Your task to perform on an android device: Add "bose quietcomfort 35" to the cart on bestbuy.com Image 0: 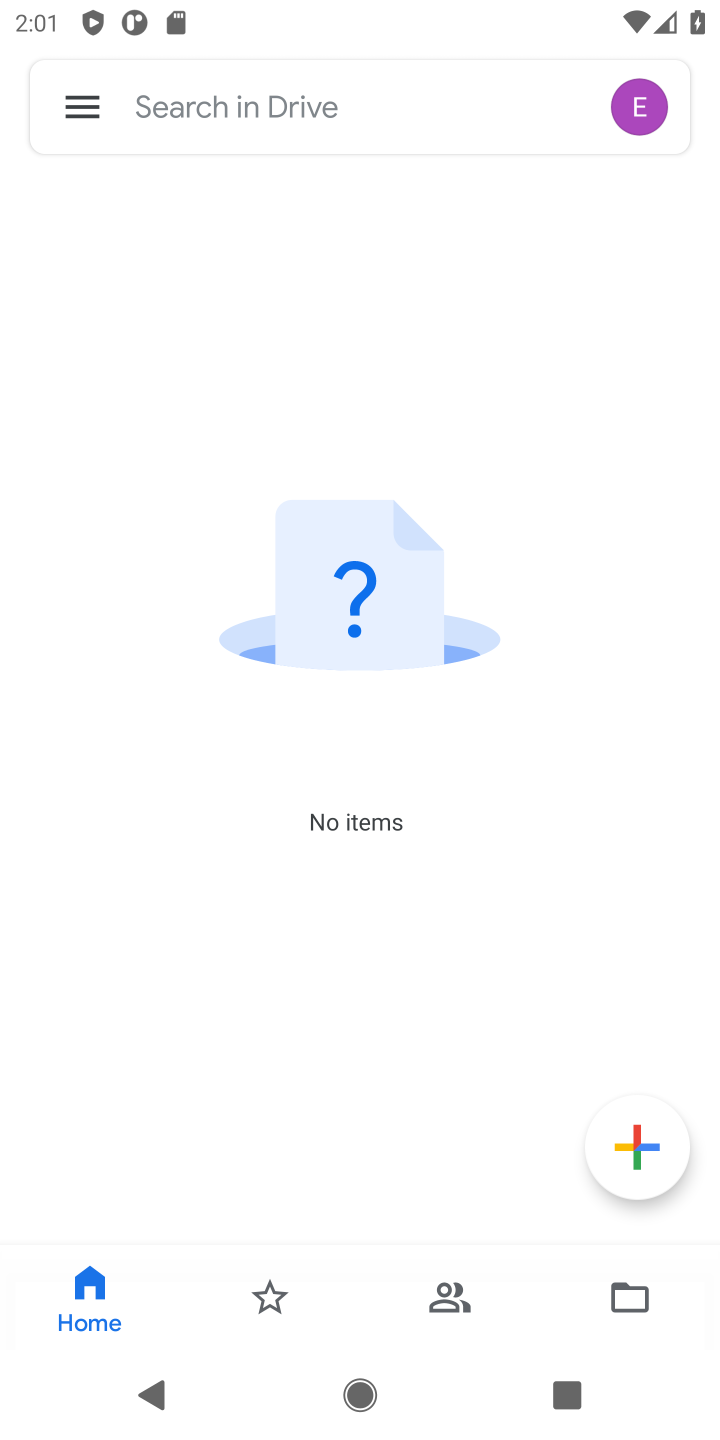
Step 0: press home button
Your task to perform on an android device: Add "bose quietcomfort 35" to the cart on bestbuy.com Image 1: 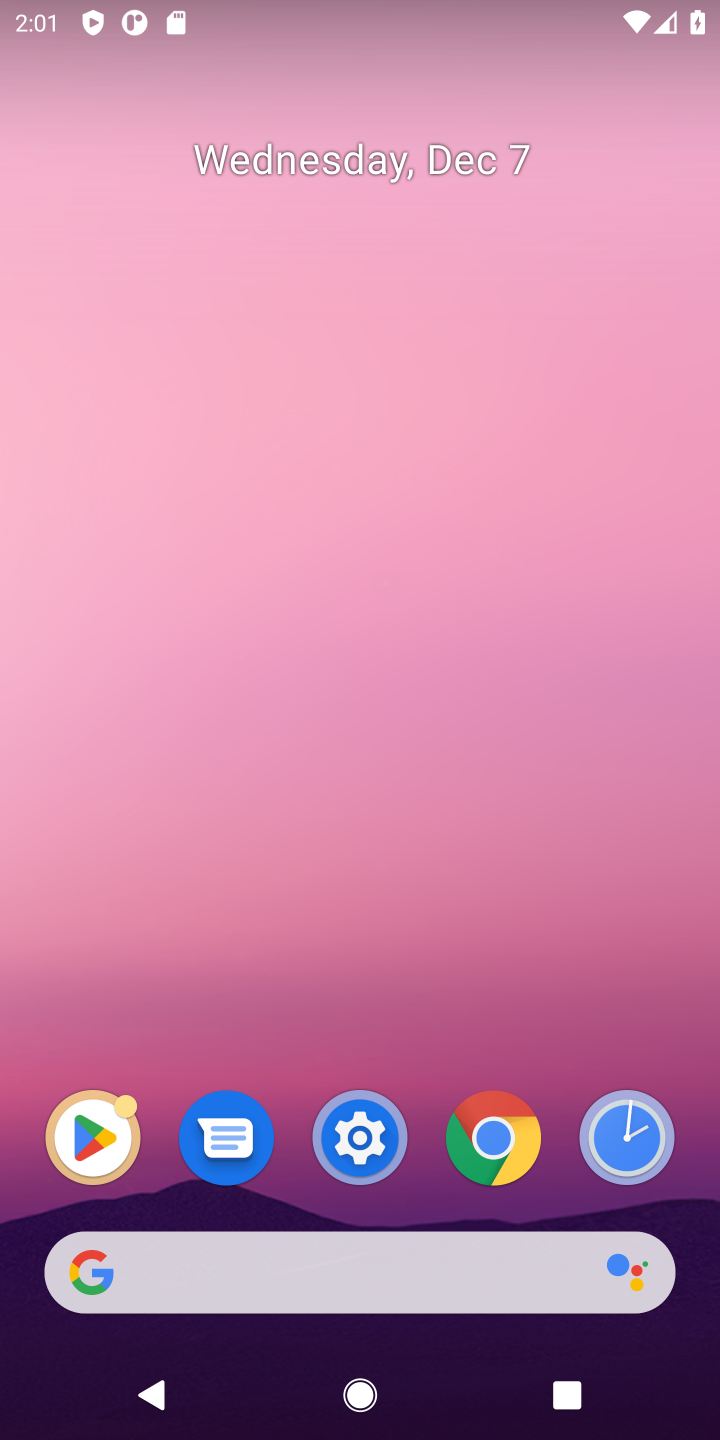
Step 1: click (367, 1258)
Your task to perform on an android device: Add "bose quietcomfort 35" to the cart on bestbuy.com Image 2: 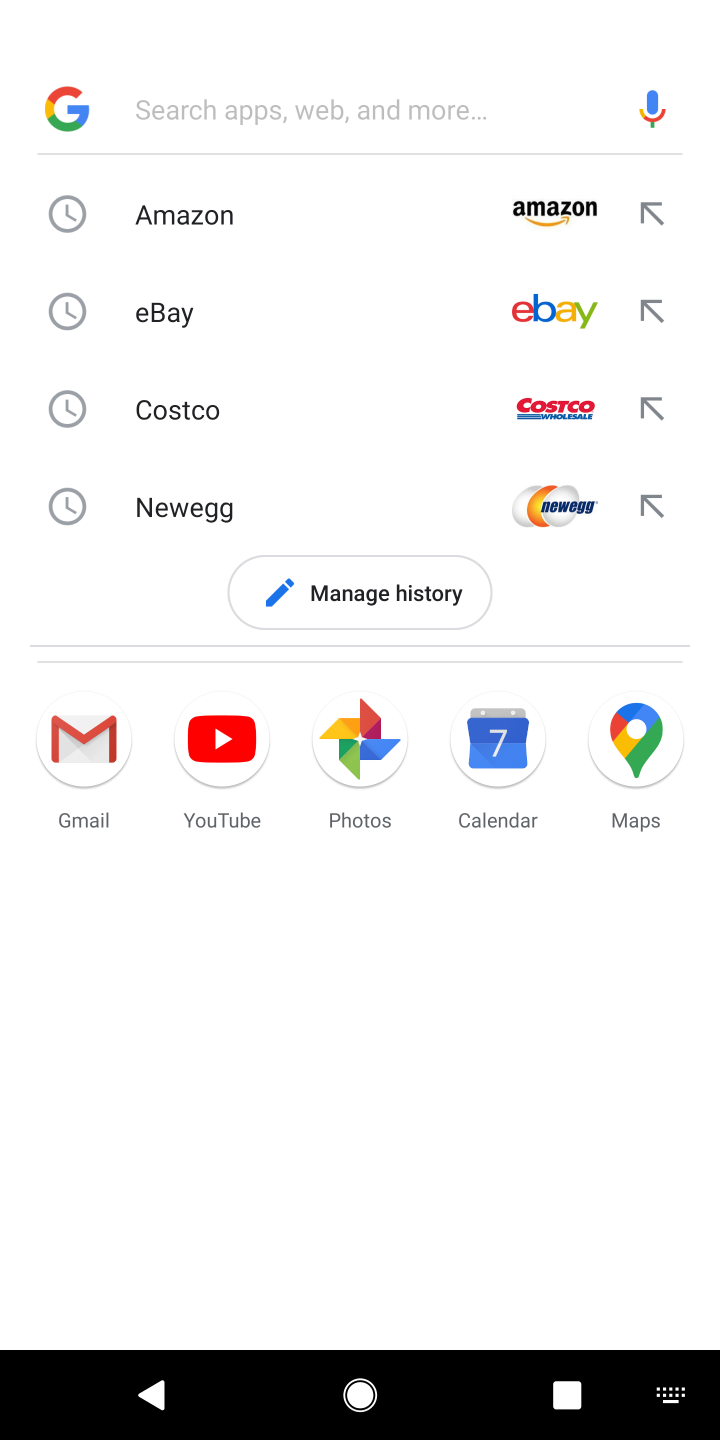
Step 2: type "bestbuy"
Your task to perform on an android device: Add "bose quietcomfort 35" to the cart on bestbuy.com Image 3: 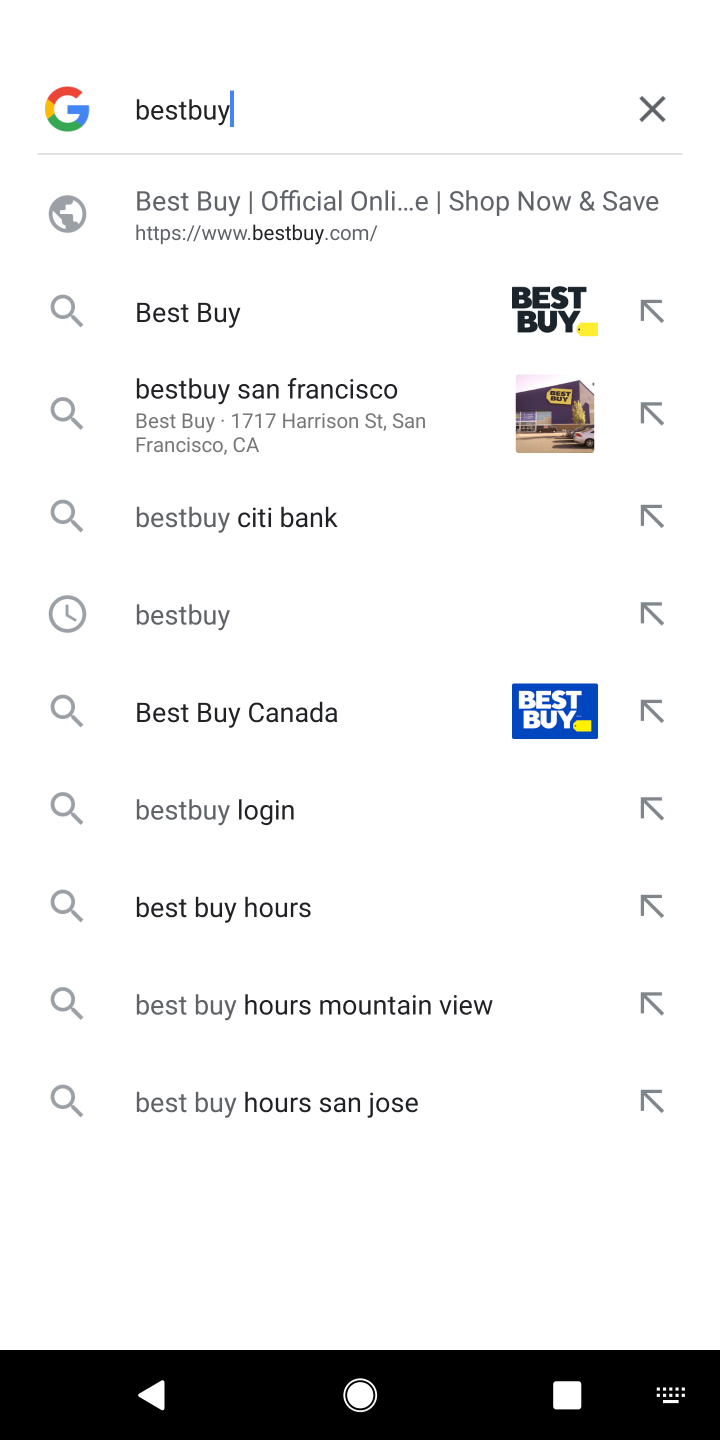
Step 3: click (199, 219)
Your task to perform on an android device: Add "bose quietcomfort 35" to the cart on bestbuy.com Image 4: 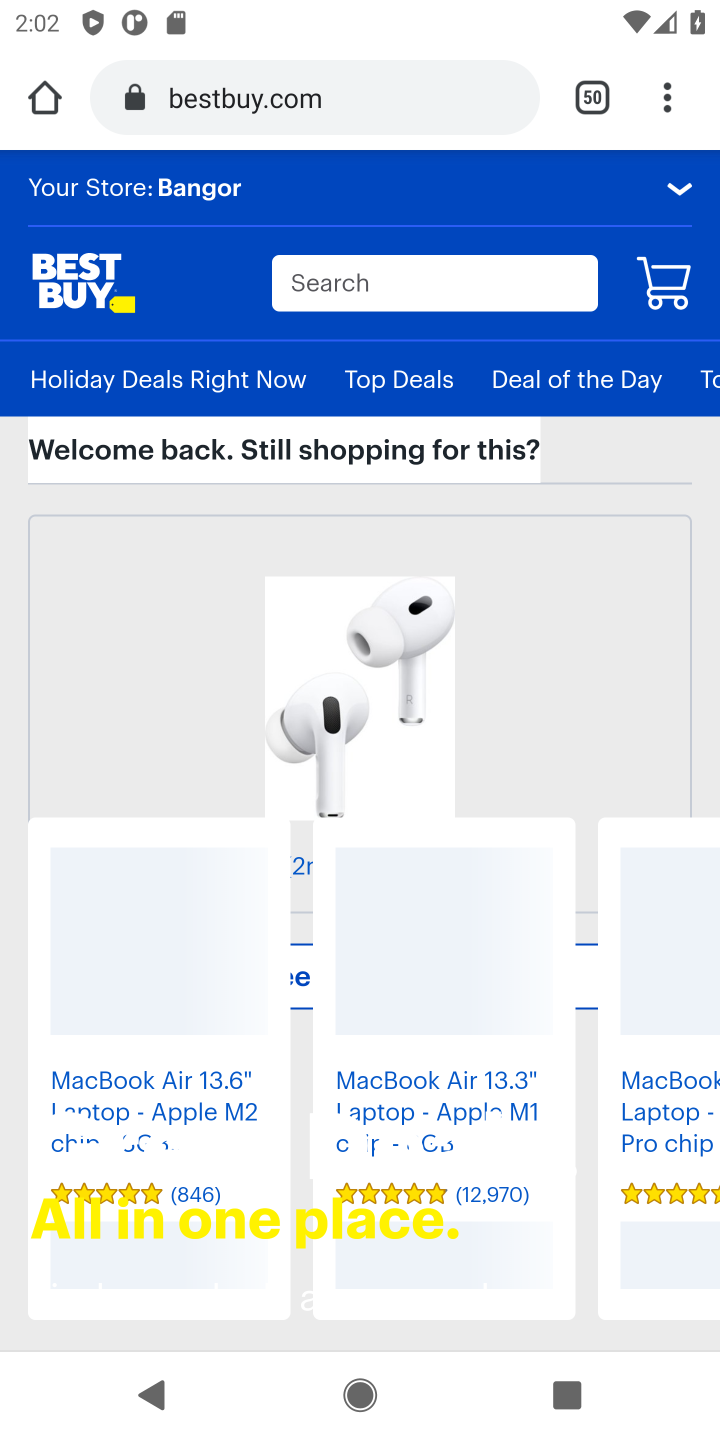
Step 4: click (387, 279)
Your task to perform on an android device: Add "bose quietcomfort 35" to the cart on bestbuy.com Image 5: 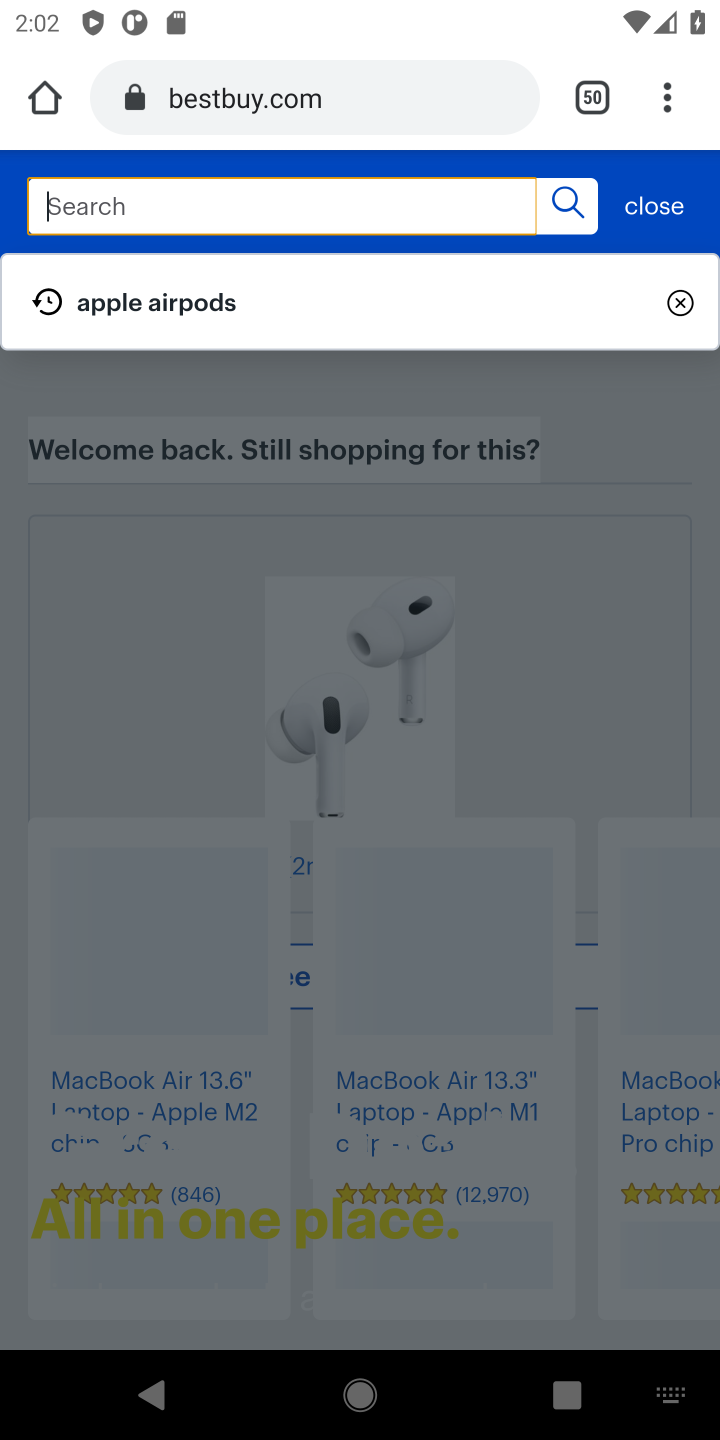
Step 5: type "bose quietcomfort"
Your task to perform on an android device: Add "bose quietcomfort 35" to the cart on bestbuy.com Image 6: 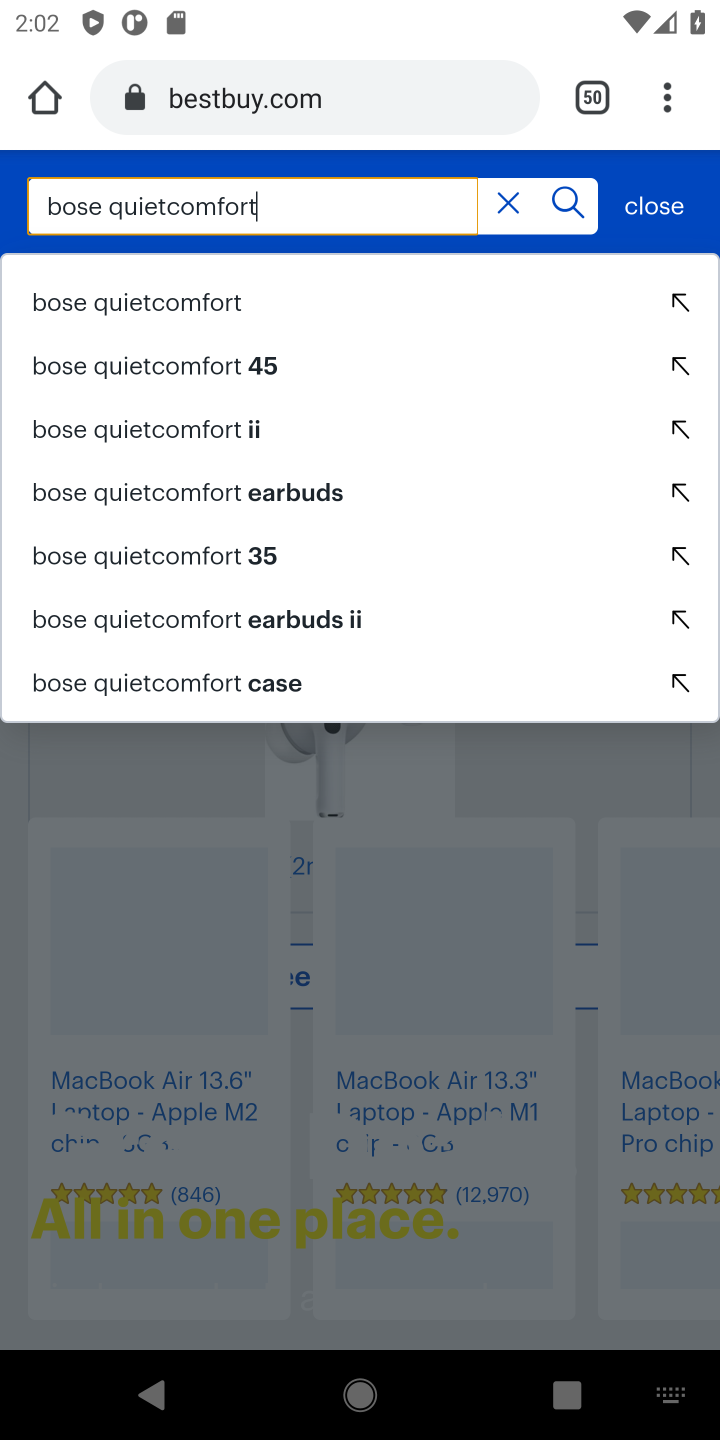
Step 6: click (401, 312)
Your task to perform on an android device: Add "bose quietcomfort 35" to the cart on bestbuy.com Image 7: 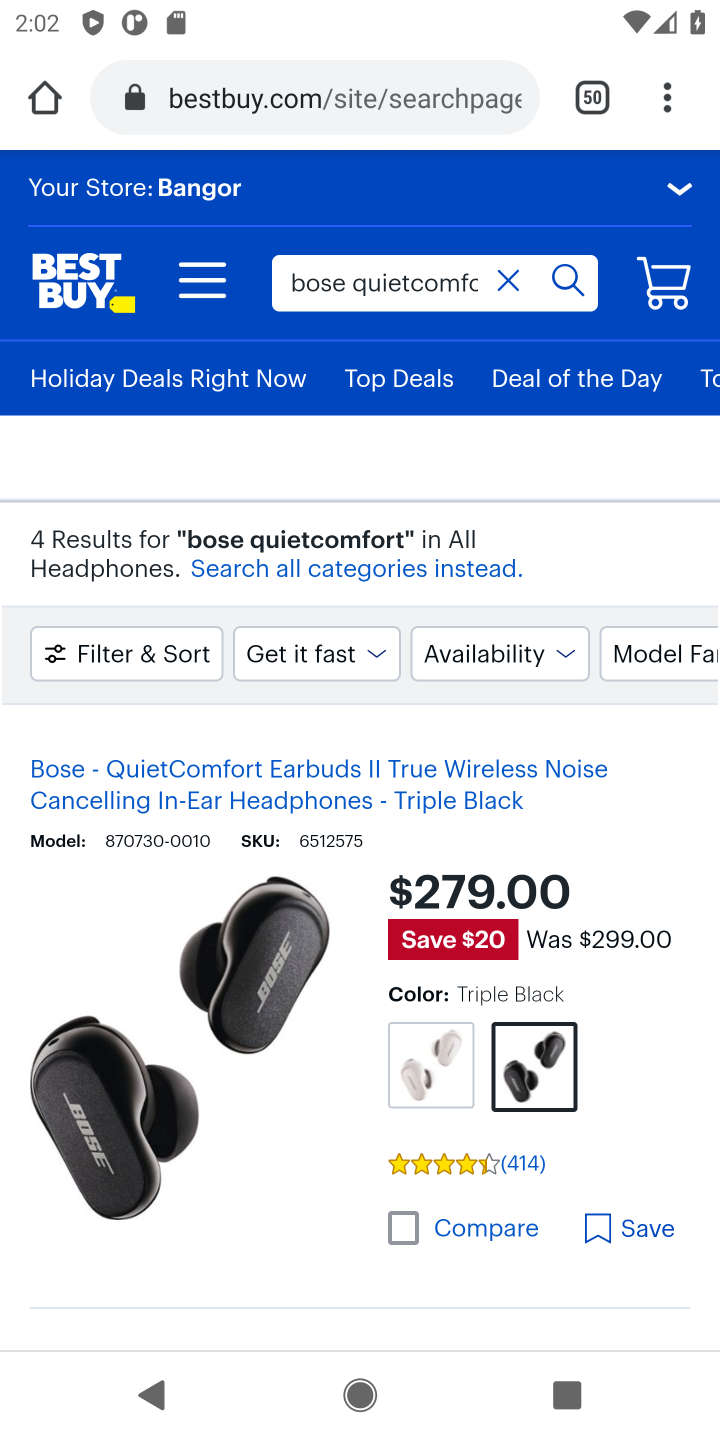
Step 7: task complete